Your task to perform on an android device: allow notifications from all sites in the chrome app Image 0: 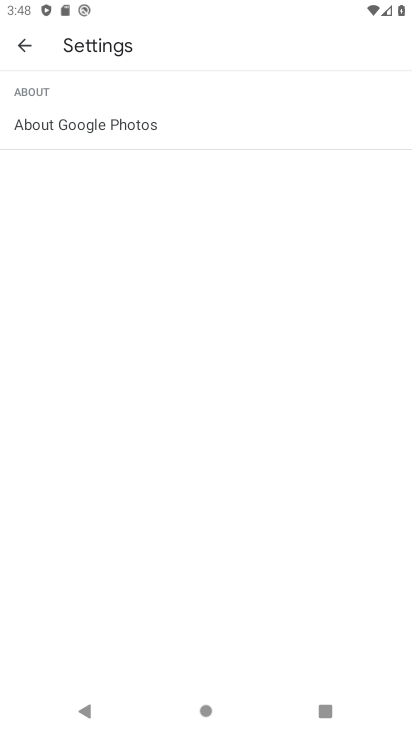
Step 0: click (20, 39)
Your task to perform on an android device: allow notifications from all sites in the chrome app Image 1: 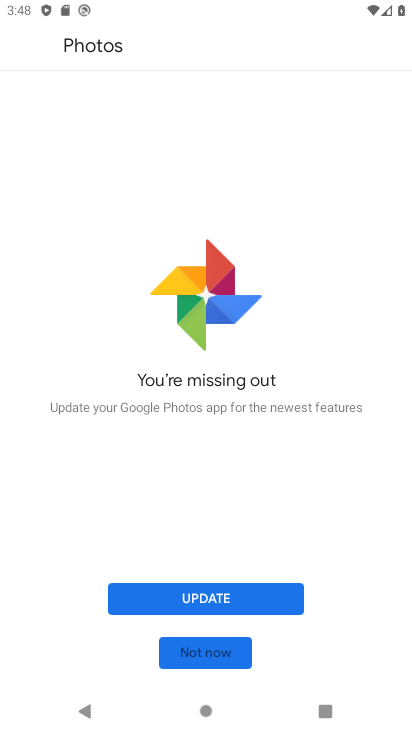
Step 1: click (195, 654)
Your task to perform on an android device: allow notifications from all sites in the chrome app Image 2: 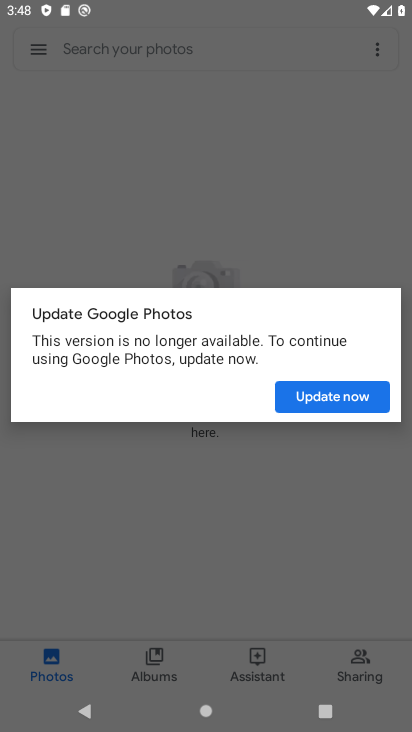
Step 2: click (303, 386)
Your task to perform on an android device: allow notifications from all sites in the chrome app Image 3: 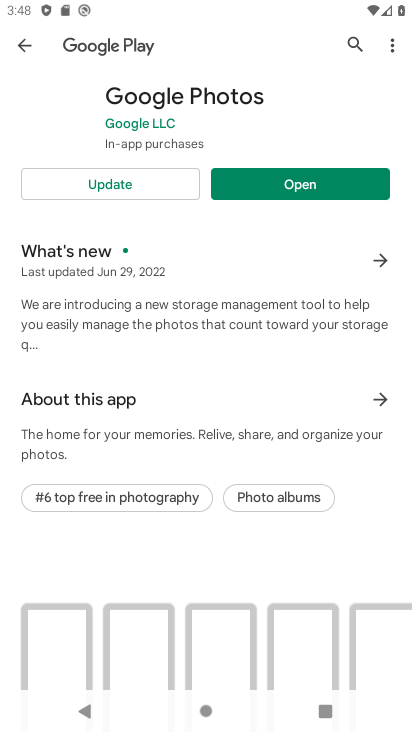
Step 3: press back button
Your task to perform on an android device: allow notifications from all sites in the chrome app Image 4: 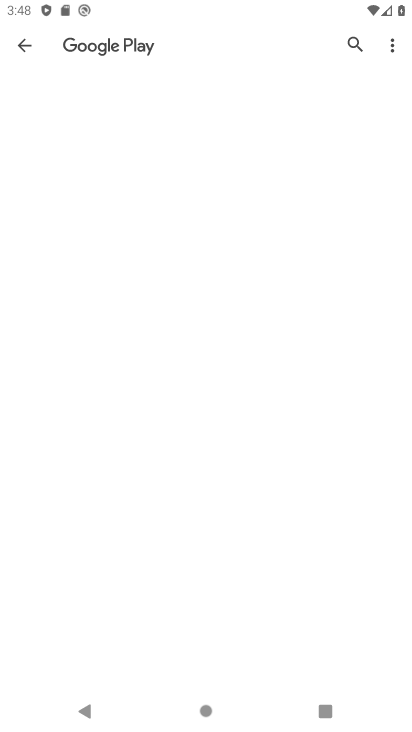
Step 4: press back button
Your task to perform on an android device: allow notifications from all sites in the chrome app Image 5: 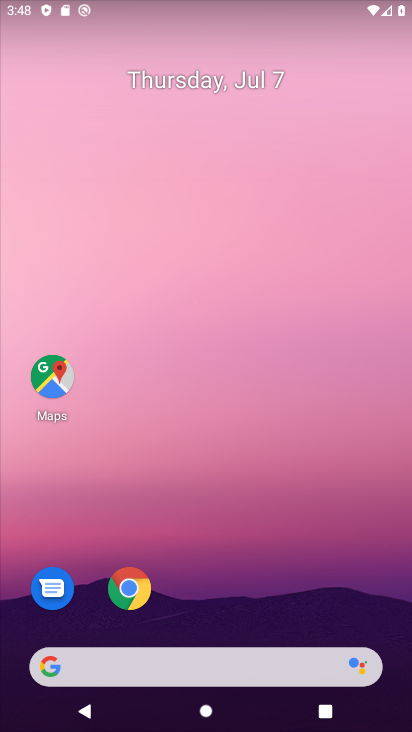
Step 5: press home button
Your task to perform on an android device: allow notifications from all sites in the chrome app Image 6: 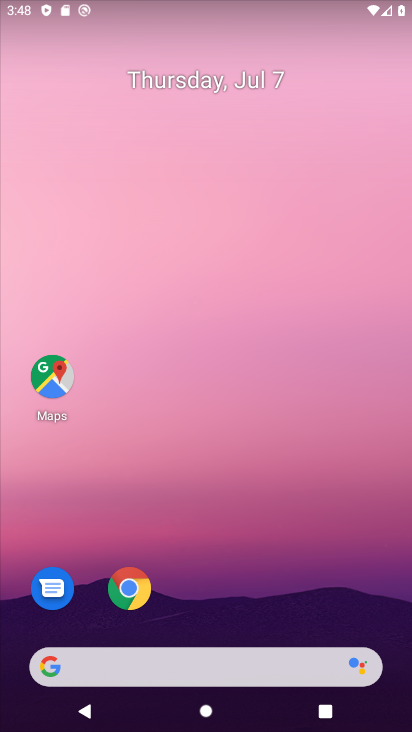
Step 6: drag from (211, 697) to (169, 242)
Your task to perform on an android device: allow notifications from all sites in the chrome app Image 7: 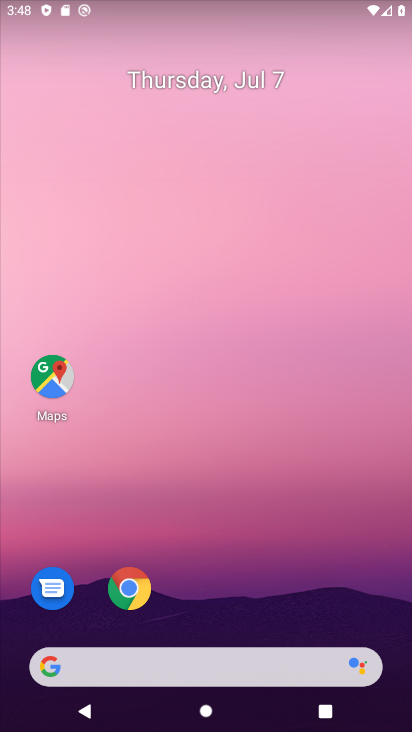
Step 7: click (234, 496)
Your task to perform on an android device: allow notifications from all sites in the chrome app Image 8: 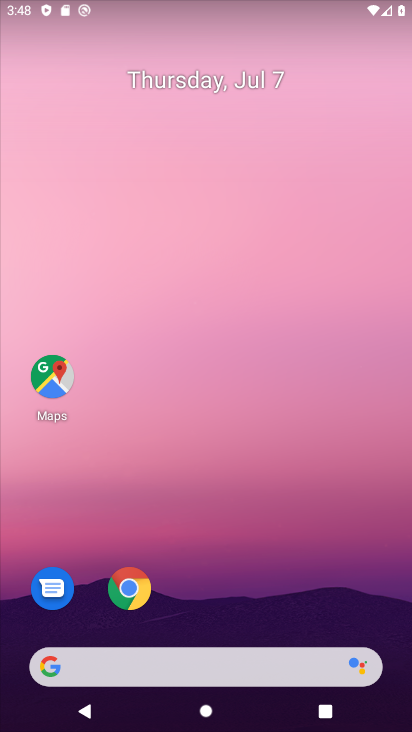
Step 8: drag from (262, 471) to (125, 38)
Your task to perform on an android device: allow notifications from all sites in the chrome app Image 9: 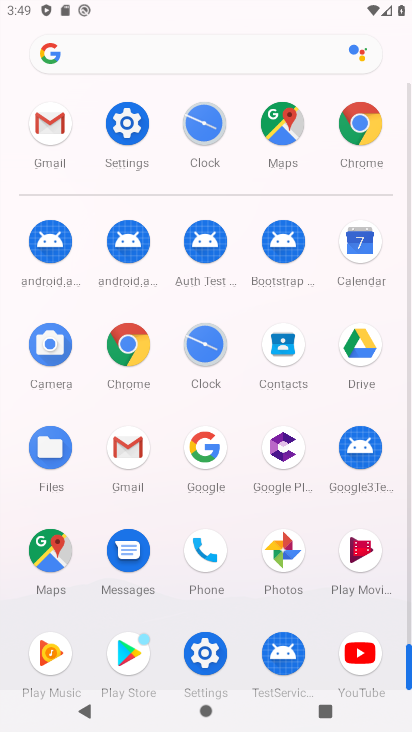
Step 9: click (127, 331)
Your task to perform on an android device: allow notifications from all sites in the chrome app Image 10: 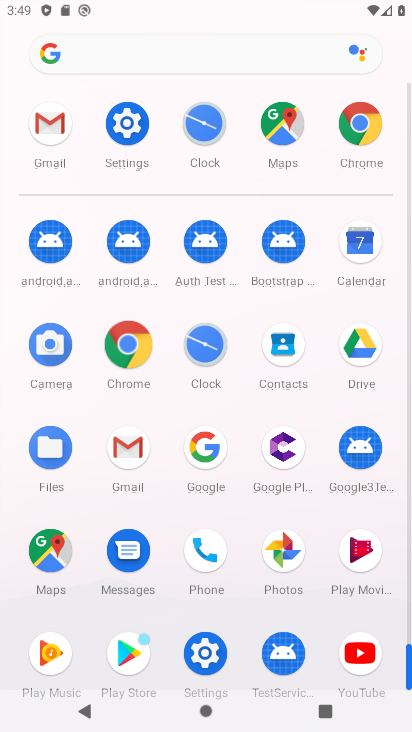
Step 10: click (129, 332)
Your task to perform on an android device: allow notifications from all sites in the chrome app Image 11: 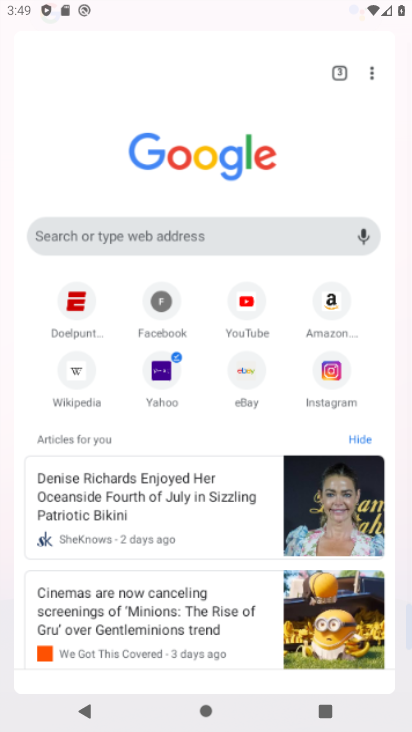
Step 11: click (132, 334)
Your task to perform on an android device: allow notifications from all sites in the chrome app Image 12: 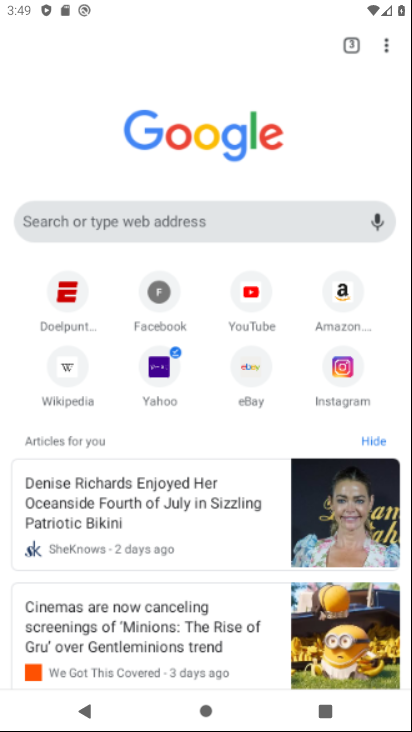
Step 12: click (132, 334)
Your task to perform on an android device: allow notifications from all sites in the chrome app Image 13: 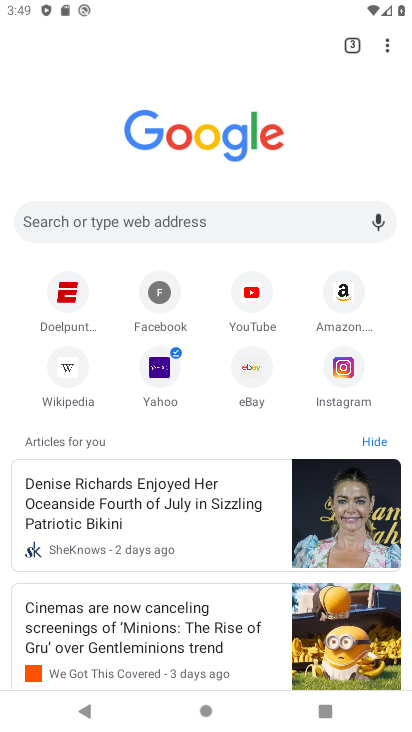
Step 13: drag from (374, 41) to (223, 444)
Your task to perform on an android device: allow notifications from all sites in the chrome app Image 14: 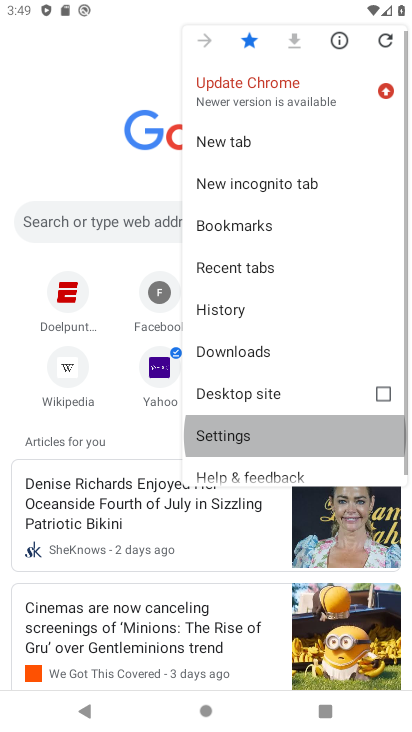
Step 14: click (223, 445)
Your task to perform on an android device: allow notifications from all sites in the chrome app Image 15: 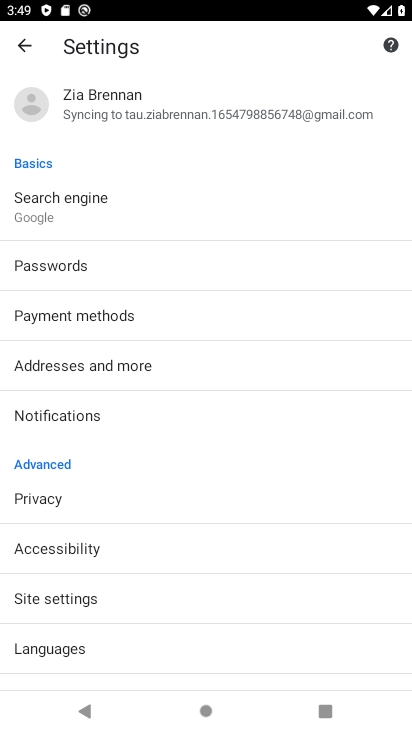
Step 15: click (74, 403)
Your task to perform on an android device: allow notifications from all sites in the chrome app Image 16: 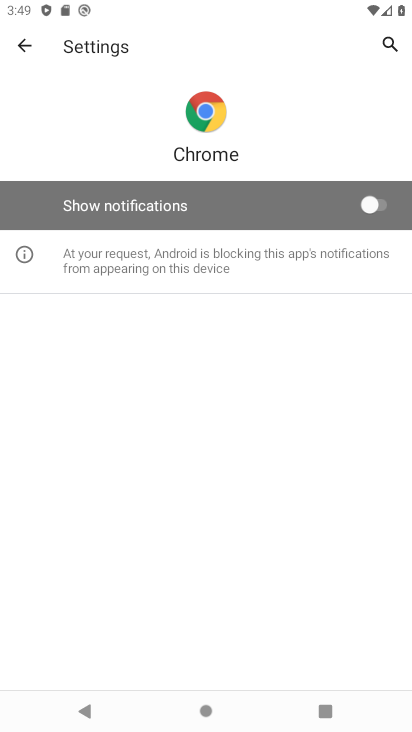
Step 16: click (365, 201)
Your task to perform on an android device: allow notifications from all sites in the chrome app Image 17: 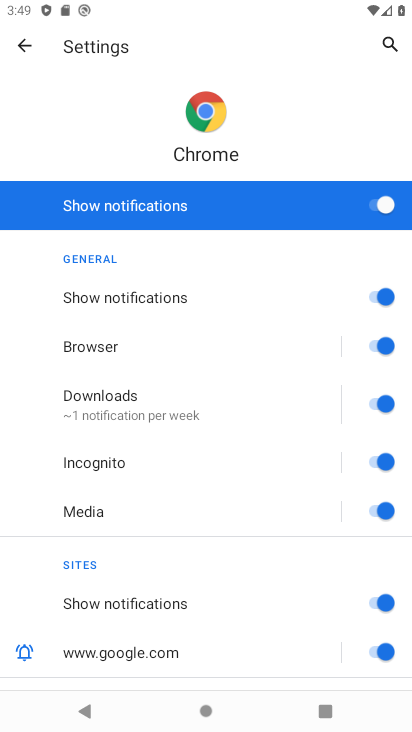
Step 17: task complete